Your task to perform on an android device: Open the stopwatch Image 0: 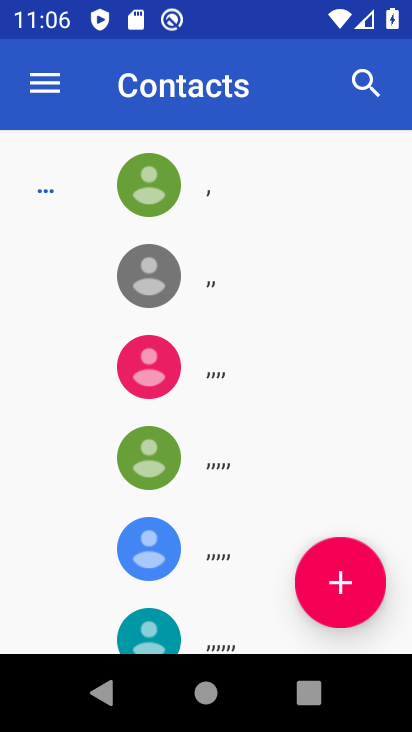
Step 0: press home button
Your task to perform on an android device: Open the stopwatch Image 1: 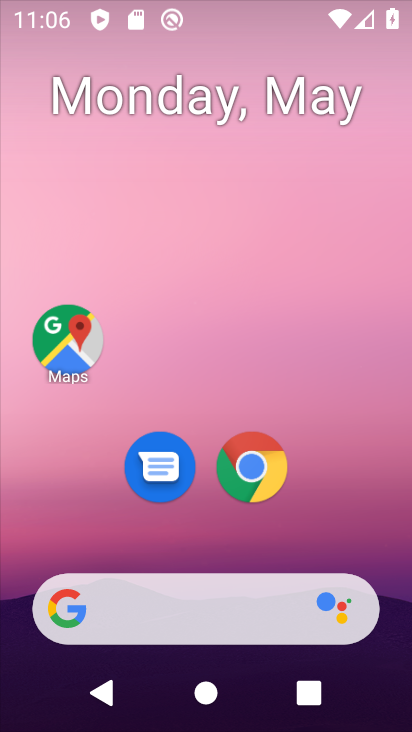
Step 1: drag from (322, 518) to (304, 18)
Your task to perform on an android device: Open the stopwatch Image 2: 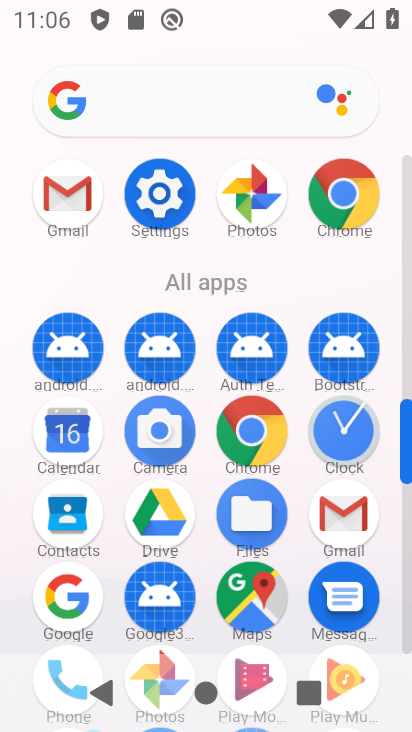
Step 2: click (365, 414)
Your task to perform on an android device: Open the stopwatch Image 3: 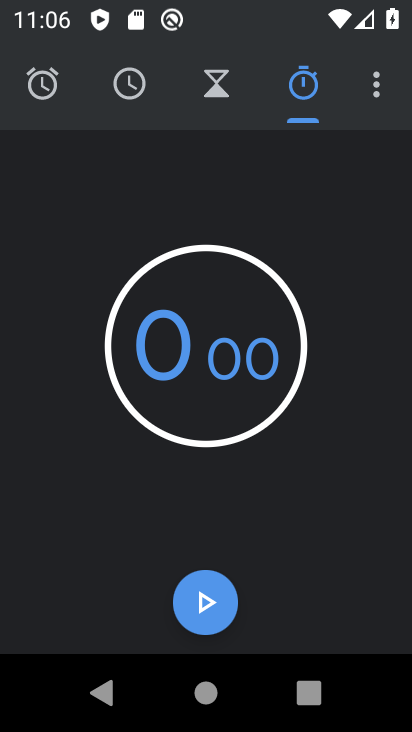
Step 3: task complete